Your task to perform on an android device: make emails show in primary in the gmail app Image 0: 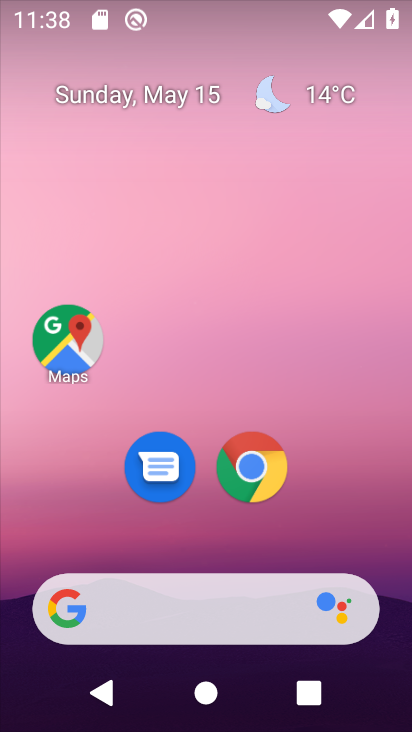
Step 0: drag from (199, 542) to (203, 87)
Your task to perform on an android device: make emails show in primary in the gmail app Image 1: 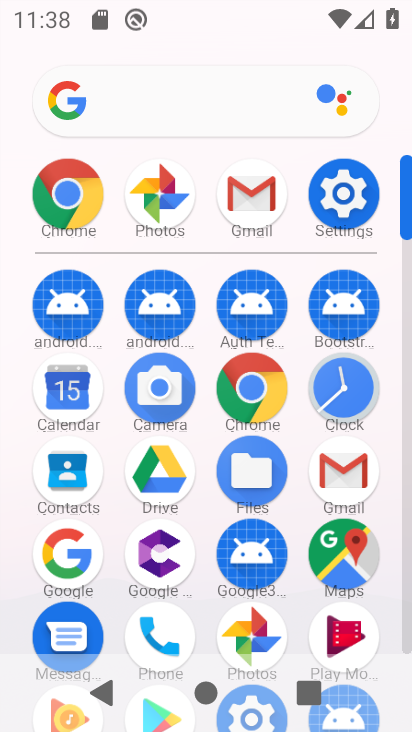
Step 1: click (344, 458)
Your task to perform on an android device: make emails show in primary in the gmail app Image 2: 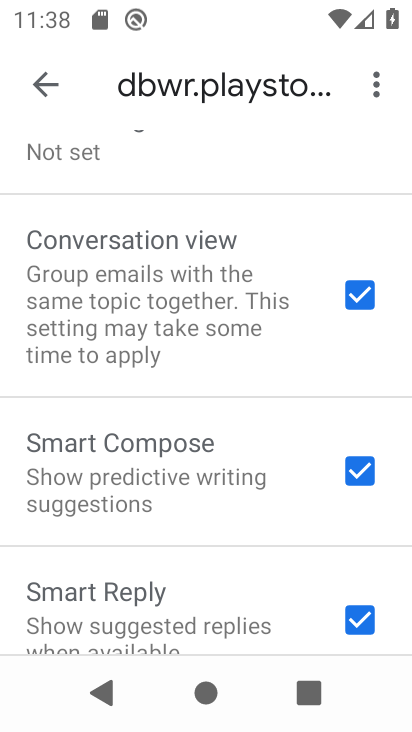
Step 2: drag from (169, 190) to (203, 731)
Your task to perform on an android device: make emails show in primary in the gmail app Image 3: 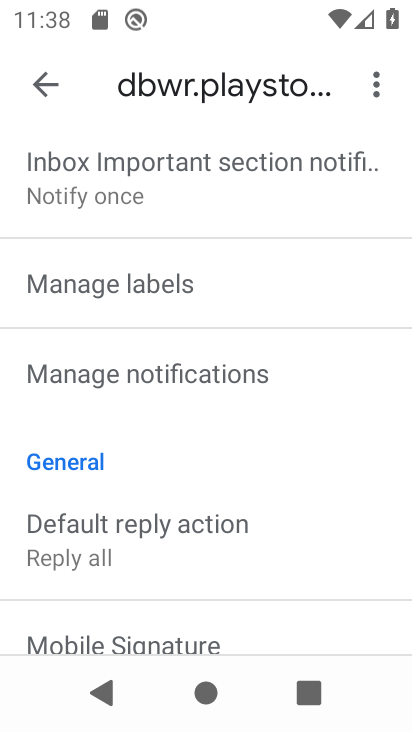
Step 3: drag from (169, 223) to (189, 701)
Your task to perform on an android device: make emails show in primary in the gmail app Image 4: 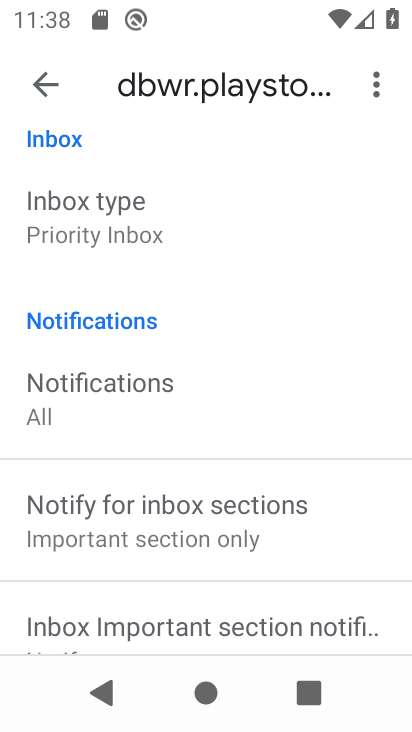
Step 4: drag from (199, 228) to (223, 666)
Your task to perform on an android device: make emails show in primary in the gmail app Image 5: 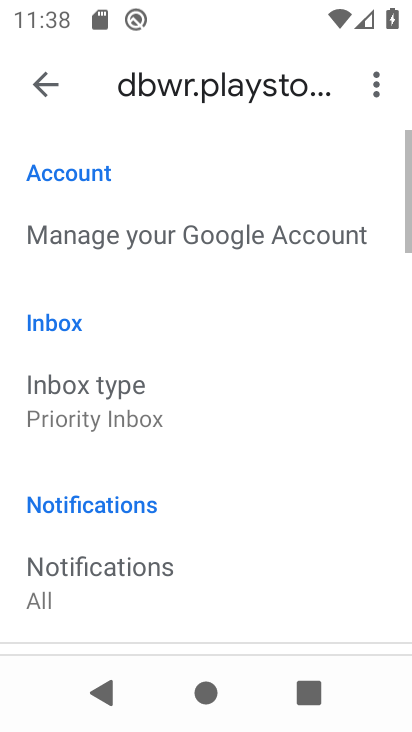
Step 5: click (167, 406)
Your task to perform on an android device: make emails show in primary in the gmail app Image 6: 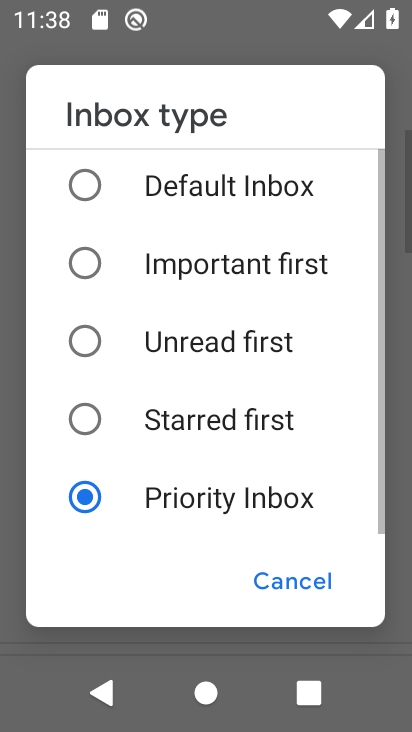
Step 6: click (101, 177)
Your task to perform on an android device: make emails show in primary in the gmail app Image 7: 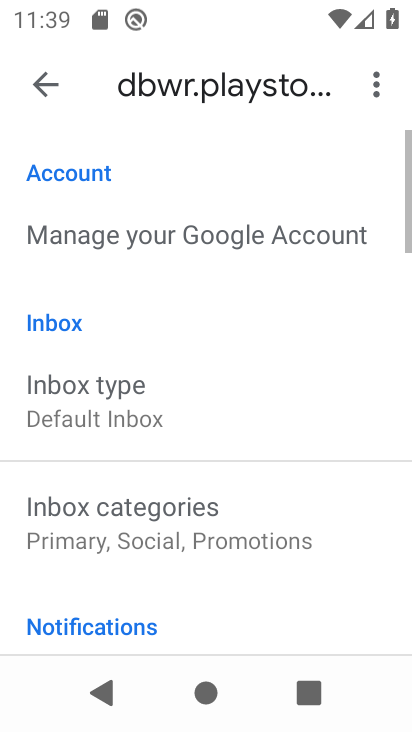
Step 7: task complete